Your task to perform on an android device: Open Youtube and go to the subscriptions tab Image 0: 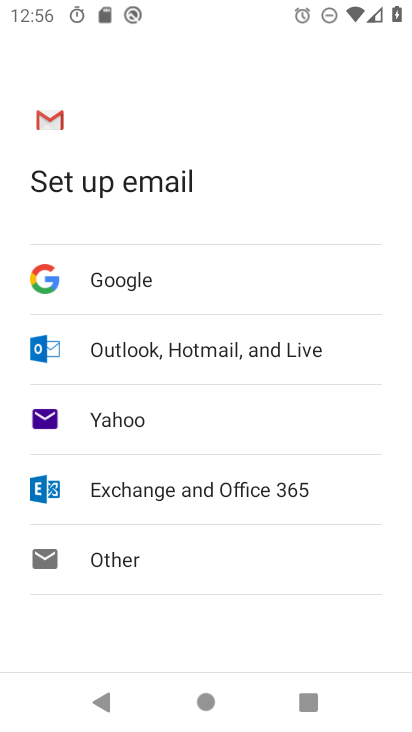
Step 0: press home button
Your task to perform on an android device: Open Youtube and go to the subscriptions tab Image 1: 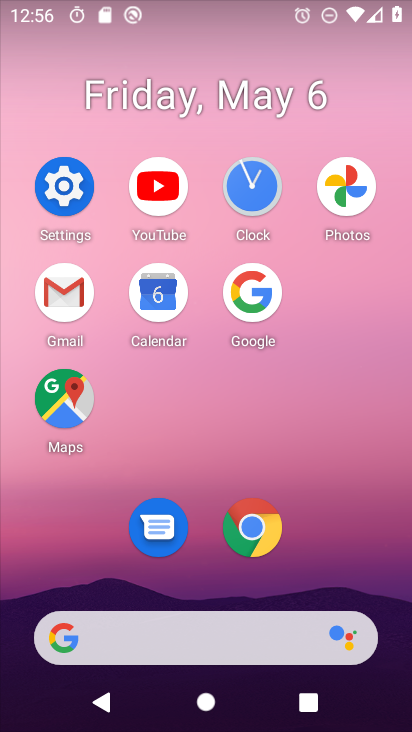
Step 1: click (160, 185)
Your task to perform on an android device: Open Youtube and go to the subscriptions tab Image 2: 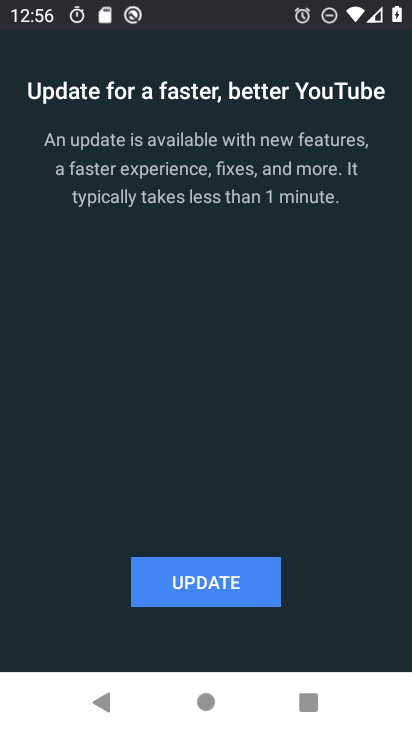
Step 2: drag from (188, 576) to (101, 576)
Your task to perform on an android device: Open Youtube and go to the subscriptions tab Image 3: 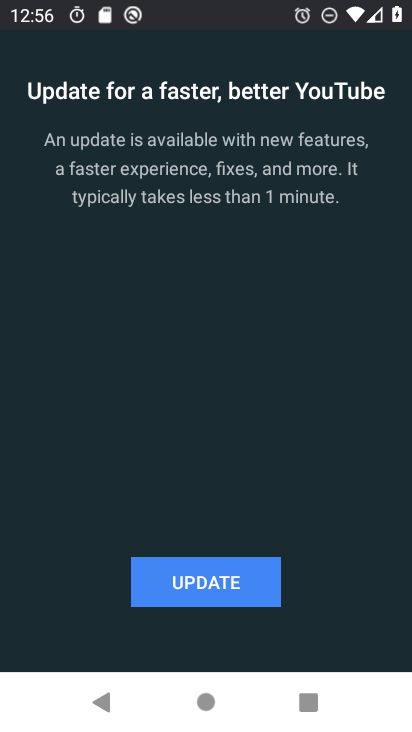
Step 3: click (176, 585)
Your task to perform on an android device: Open Youtube and go to the subscriptions tab Image 4: 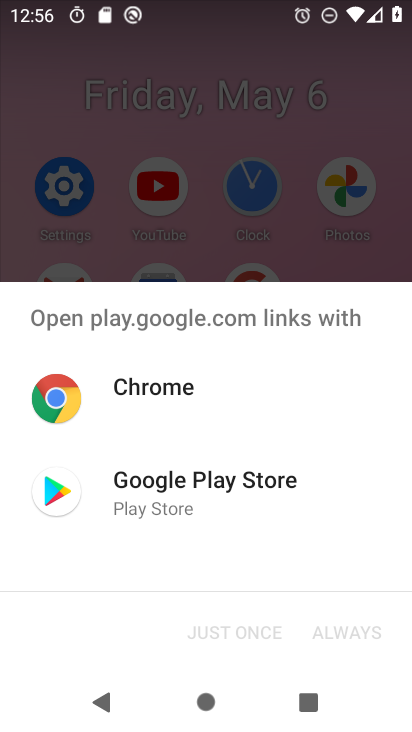
Step 4: click (254, 487)
Your task to perform on an android device: Open Youtube and go to the subscriptions tab Image 5: 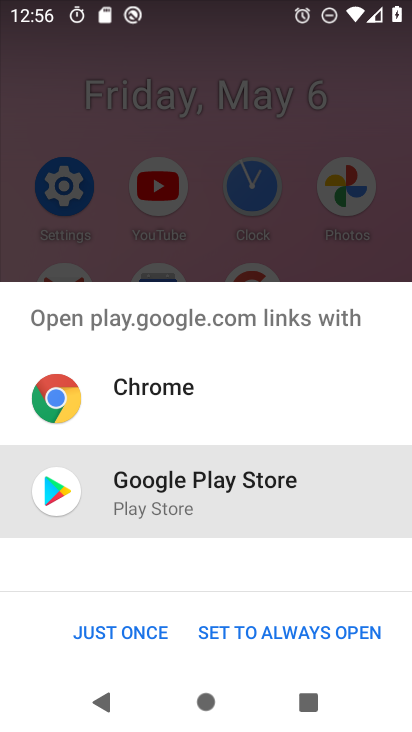
Step 5: click (254, 487)
Your task to perform on an android device: Open Youtube and go to the subscriptions tab Image 6: 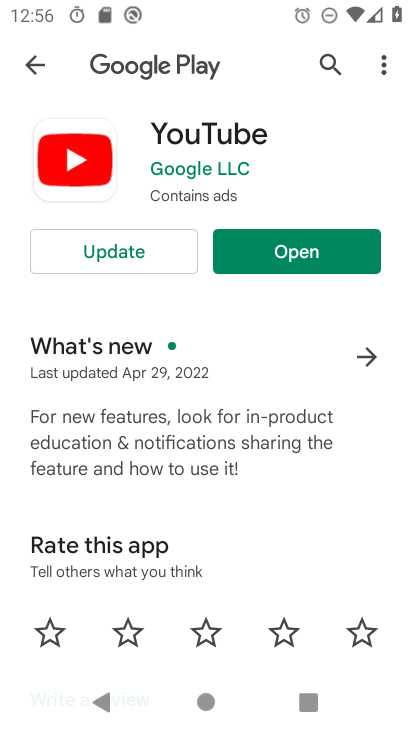
Step 6: click (170, 254)
Your task to perform on an android device: Open Youtube and go to the subscriptions tab Image 7: 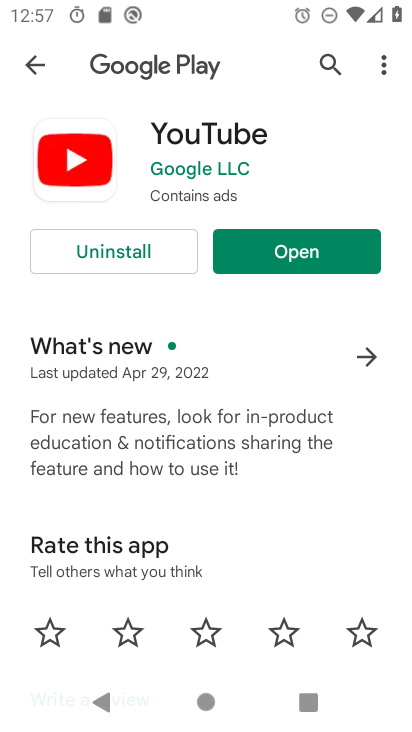
Step 7: click (347, 253)
Your task to perform on an android device: Open Youtube and go to the subscriptions tab Image 8: 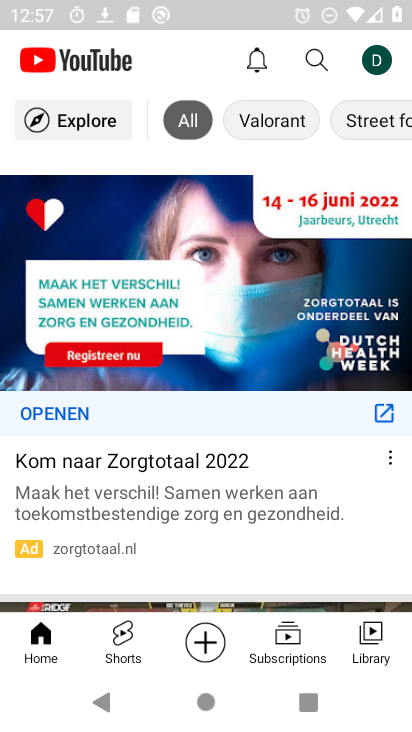
Step 8: click (314, 645)
Your task to perform on an android device: Open Youtube and go to the subscriptions tab Image 9: 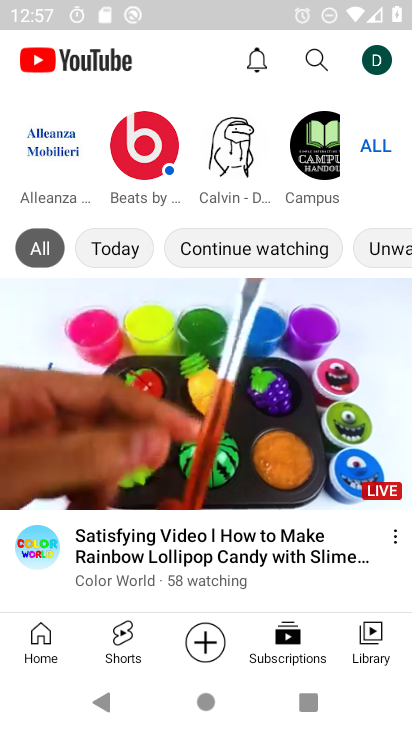
Step 9: task complete